Your task to perform on an android device: turn notification dots off Image 0: 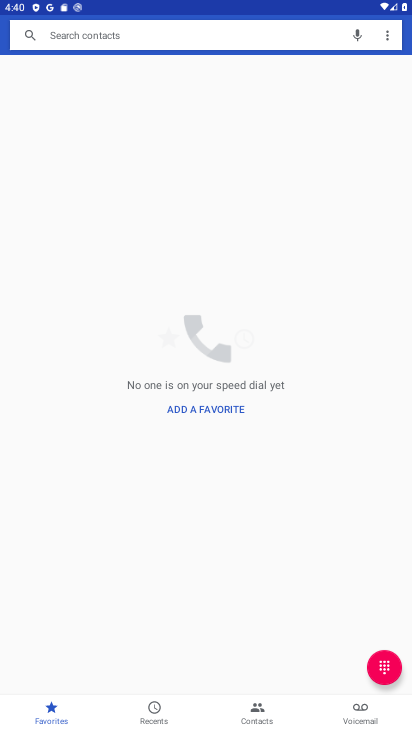
Step 0: press home button
Your task to perform on an android device: turn notification dots off Image 1: 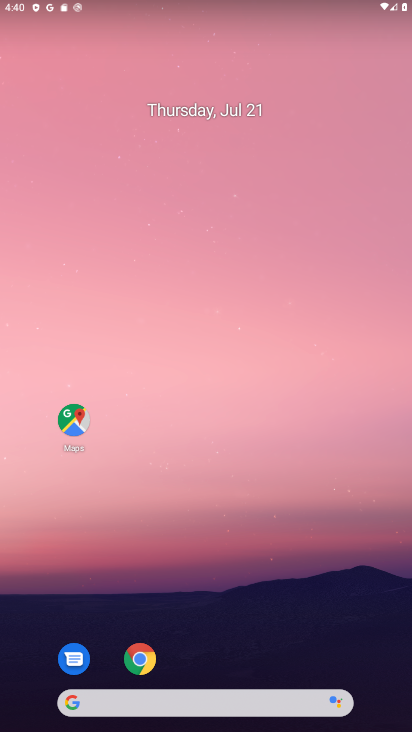
Step 1: drag from (229, 607) to (164, 100)
Your task to perform on an android device: turn notification dots off Image 2: 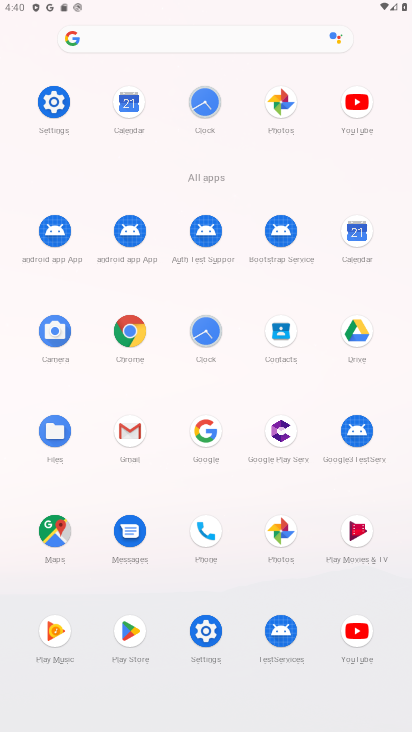
Step 2: click (54, 104)
Your task to perform on an android device: turn notification dots off Image 3: 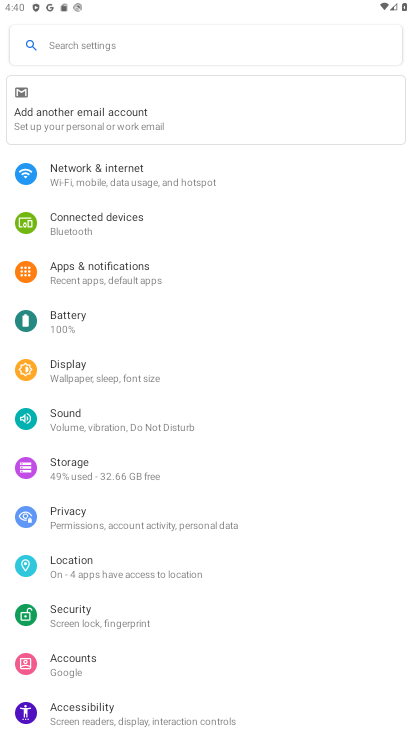
Step 3: click (108, 266)
Your task to perform on an android device: turn notification dots off Image 4: 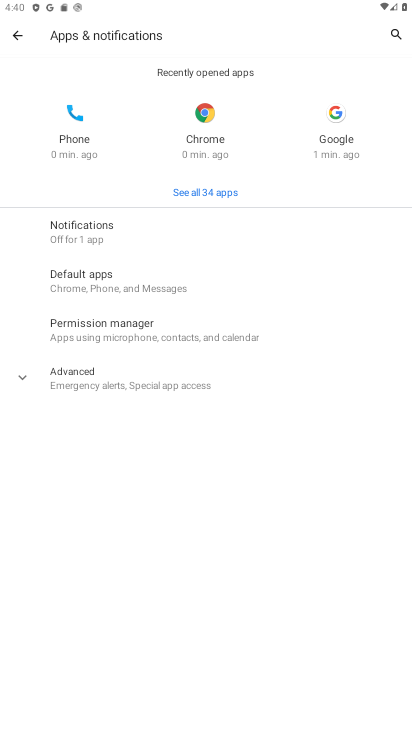
Step 4: click (69, 225)
Your task to perform on an android device: turn notification dots off Image 5: 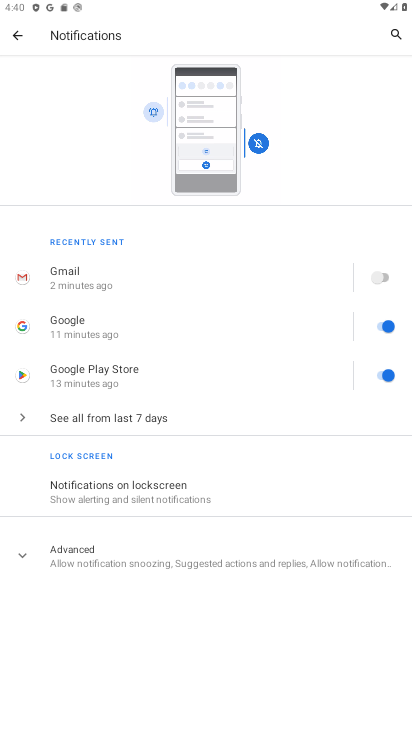
Step 5: click (25, 556)
Your task to perform on an android device: turn notification dots off Image 6: 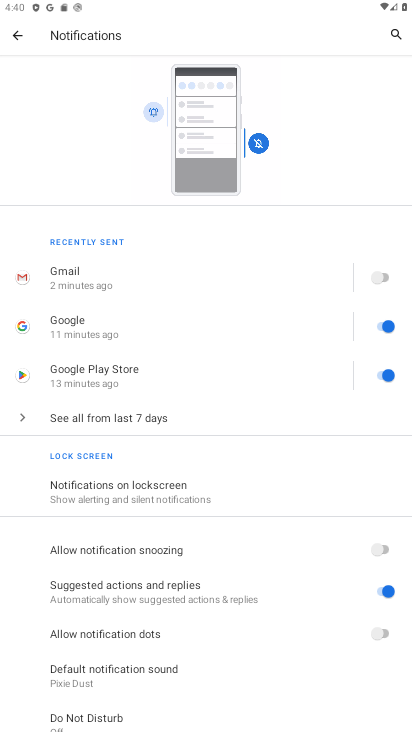
Step 6: task complete